Your task to perform on an android device: delete the emails in spam in the gmail app Image 0: 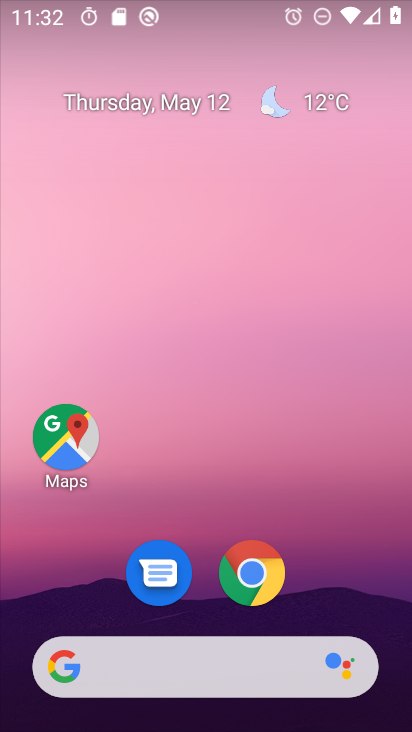
Step 0: drag from (400, 636) to (399, 413)
Your task to perform on an android device: delete the emails in spam in the gmail app Image 1: 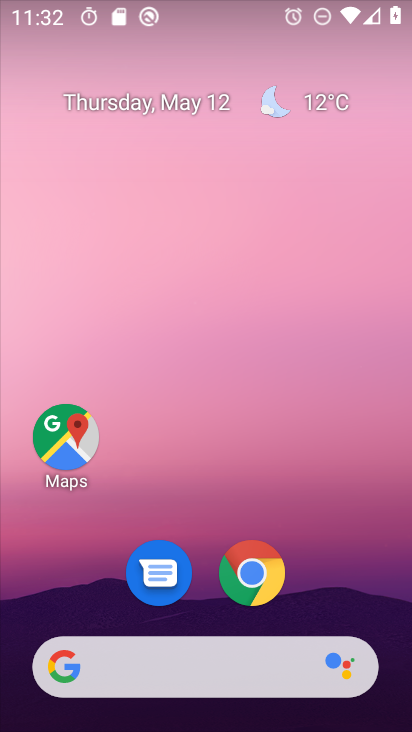
Step 1: click (394, 384)
Your task to perform on an android device: delete the emails in spam in the gmail app Image 2: 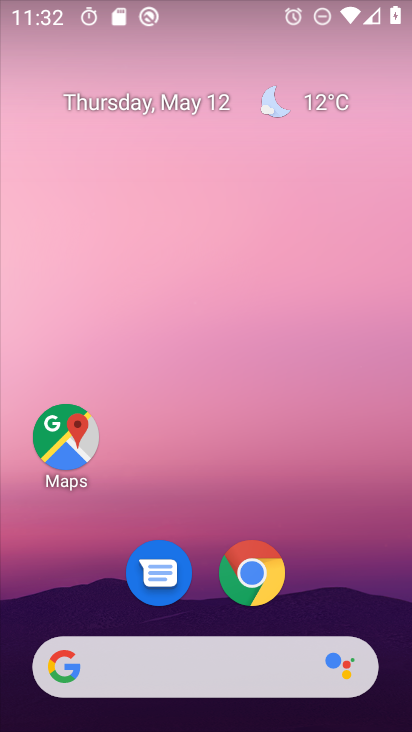
Step 2: drag from (382, 584) to (325, 339)
Your task to perform on an android device: delete the emails in spam in the gmail app Image 3: 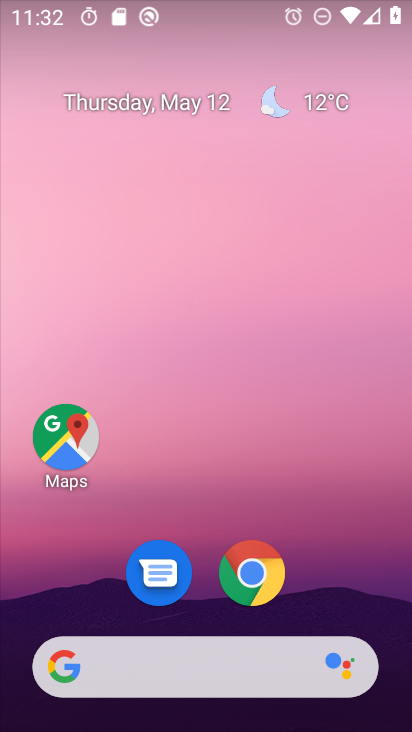
Step 3: drag from (399, 666) to (366, 230)
Your task to perform on an android device: delete the emails in spam in the gmail app Image 4: 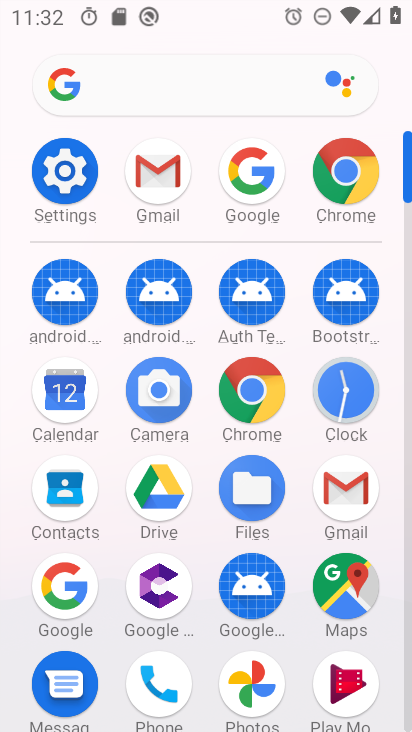
Step 4: click (345, 500)
Your task to perform on an android device: delete the emails in spam in the gmail app Image 5: 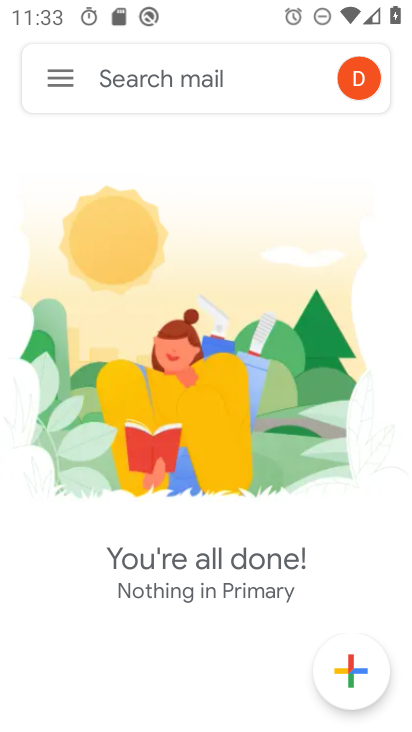
Step 5: click (66, 82)
Your task to perform on an android device: delete the emails in spam in the gmail app Image 6: 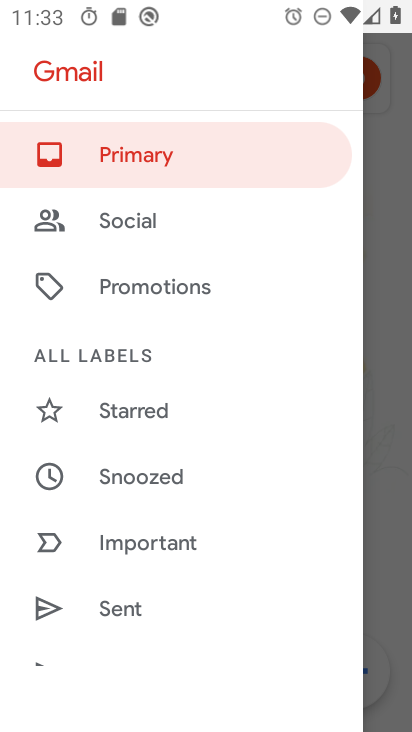
Step 6: drag from (227, 590) to (234, 338)
Your task to perform on an android device: delete the emails in spam in the gmail app Image 7: 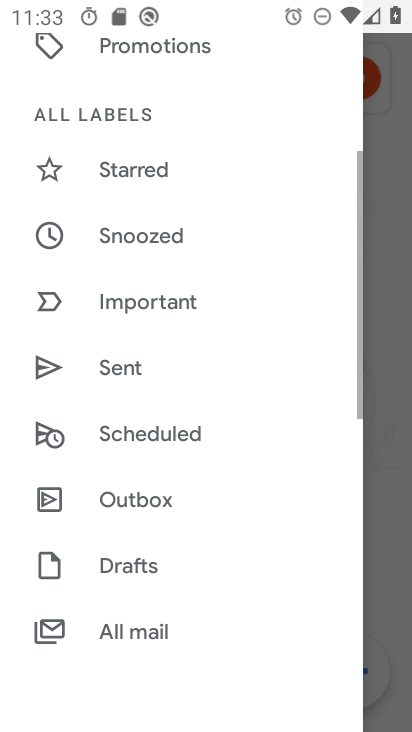
Step 7: drag from (209, 627) to (210, 383)
Your task to perform on an android device: delete the emails in spam in the gmail app Image 8: 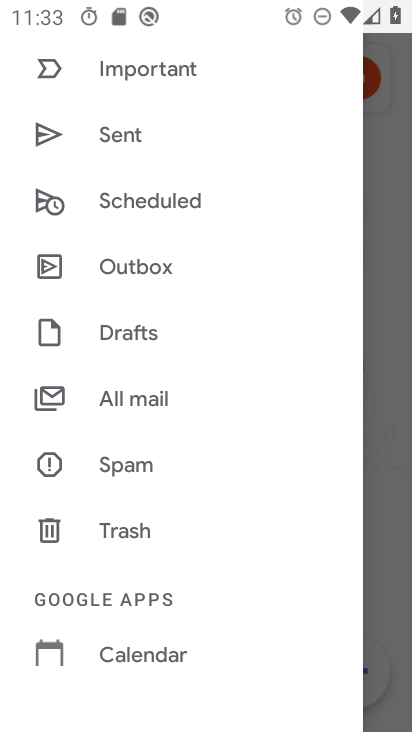
Step 8: click (107, 459)
Your task to perform on an android device: delete the emails in spam in the gmail app Image 9: 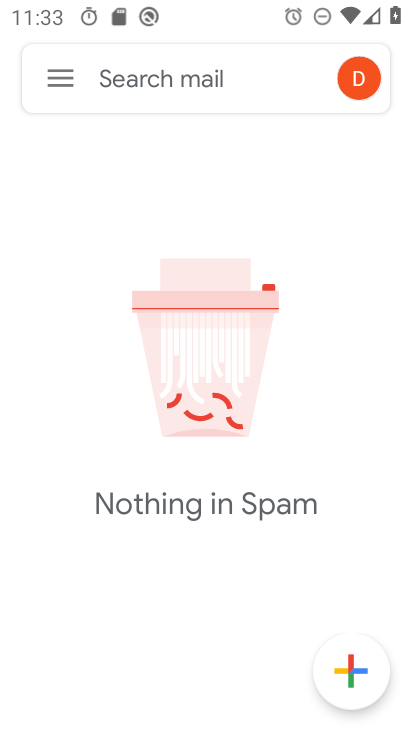
Step 9: task complete